Your task to perform on an android device: see creations saved in the google photos Image 0: 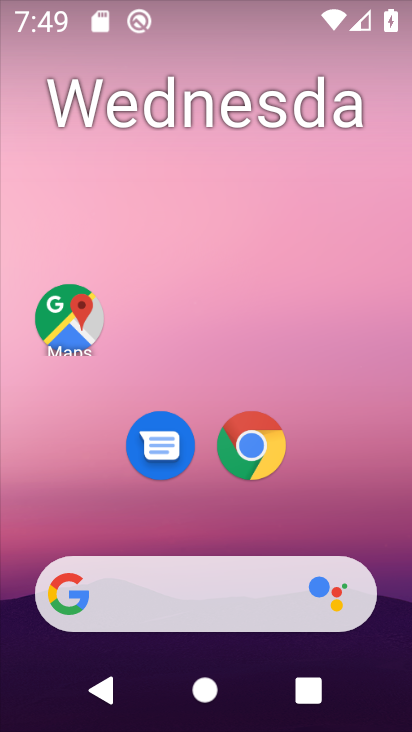
Step 0: drag from (191, 493) to (217, 16)
Your task to perform on an android device: see creations saved in the google photos Image 1: 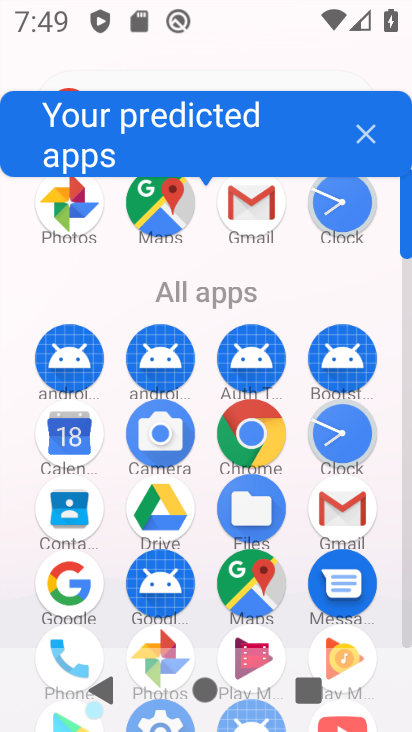
Step 1: click (161, 631)
Your task to perform on an android device: see creations saved in the google photos Image 2: 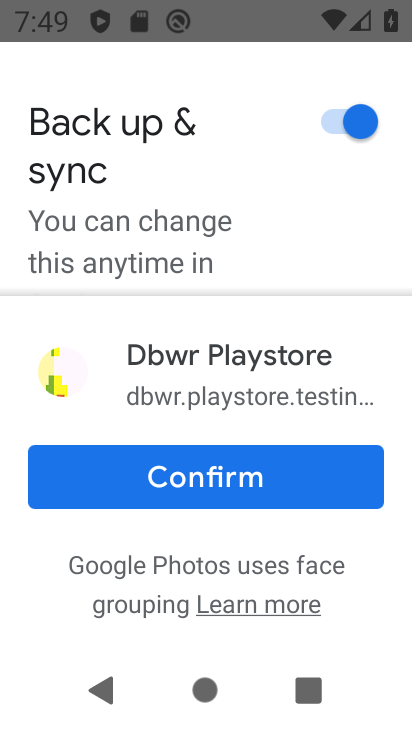
Step 2: click (205, 470)
Your task to perform on an android device: see creations saved in the google photos Image 3: 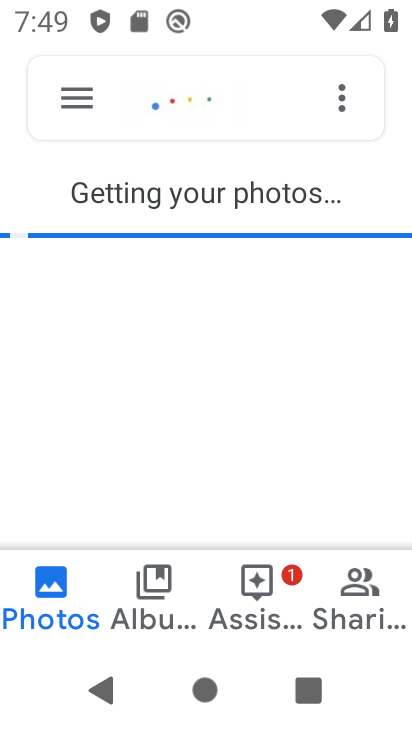
Step 3: click (186, 128)
Your task to perform on an android device: see creations saved in the google photos Image 4: 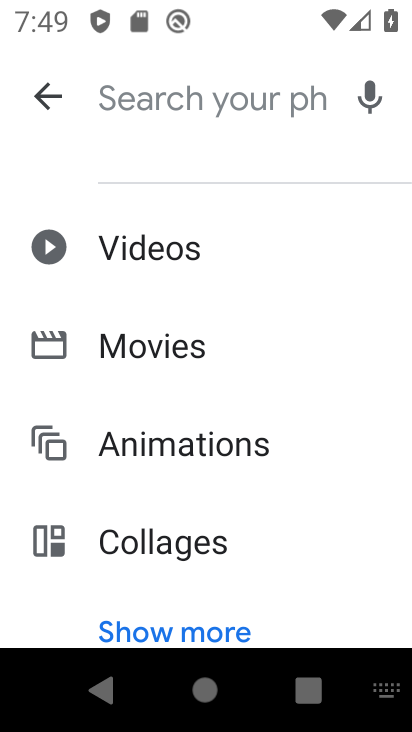
Step 4: click (178, 621)
Your task to perform on an android device: see creations saved in the google photos Image 5: 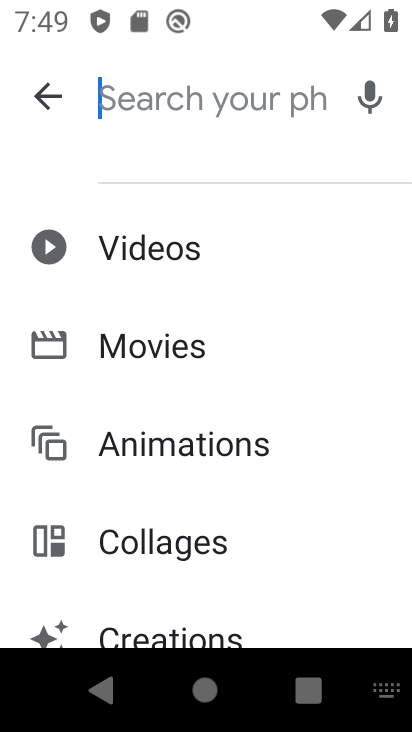
Step 5: drag from (178, 615) to (150, 299)
Your task to perform on an android device: see creations saved in the google photos Image 6: 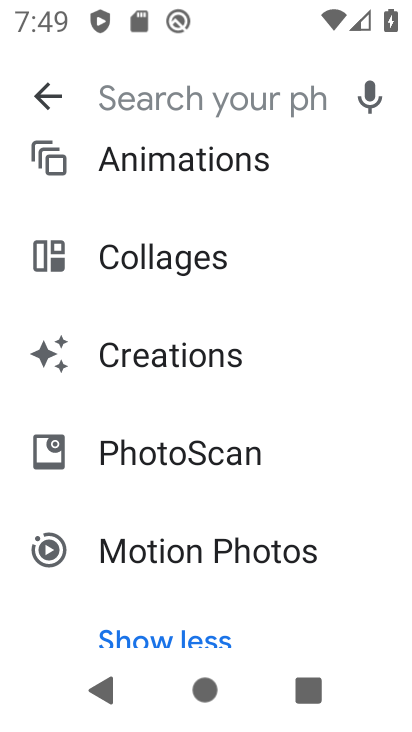
Step 6: click (113, 361)
Your task to perform on an android device: see creations saved in the google photos Image 7: 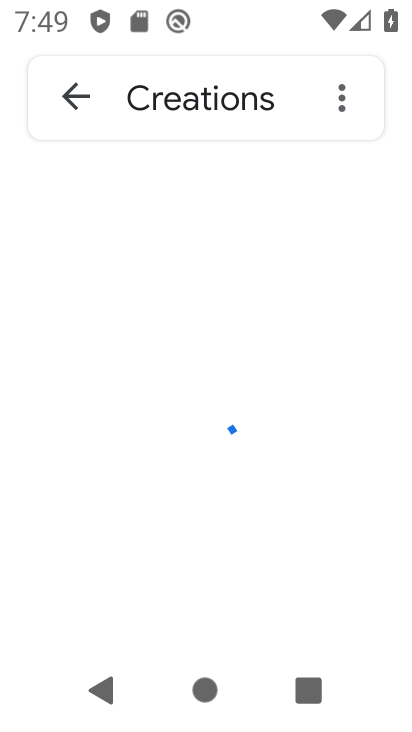
Step 7: task complete